Your task to perform on an android device: open app "Pinterest" Image 0: 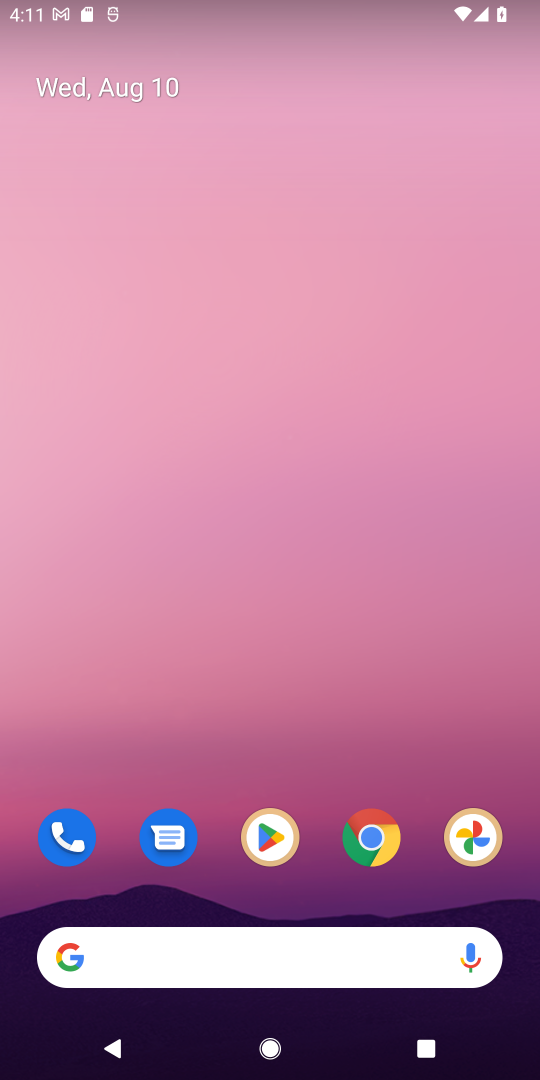
Step 0: press home button
Your task to perform on an android device: open app "Pinterest" Image 1: 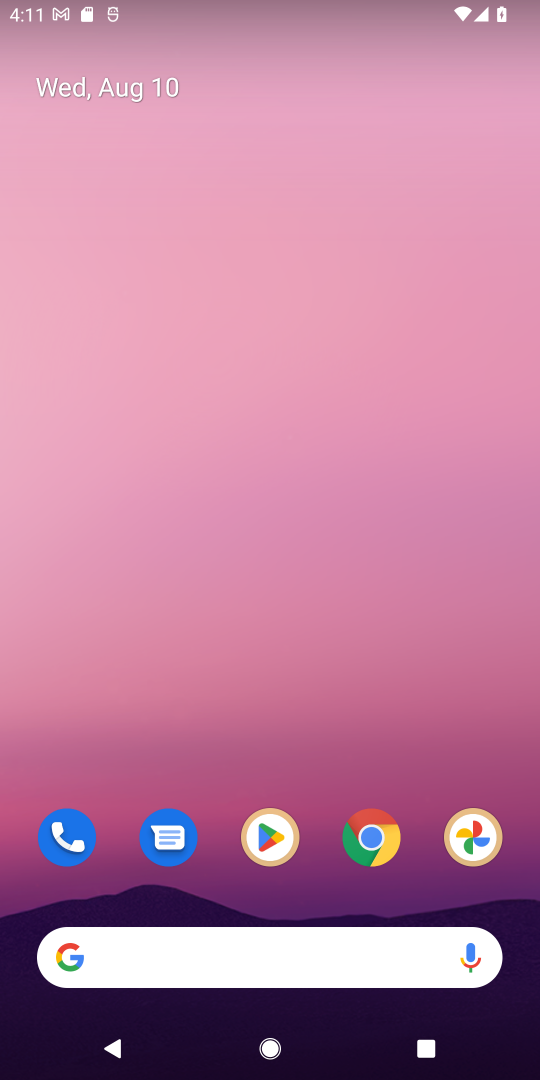
Step 1: click (268, 836)
Your task to perform on an android device: open app "Pinterest" Image 2: 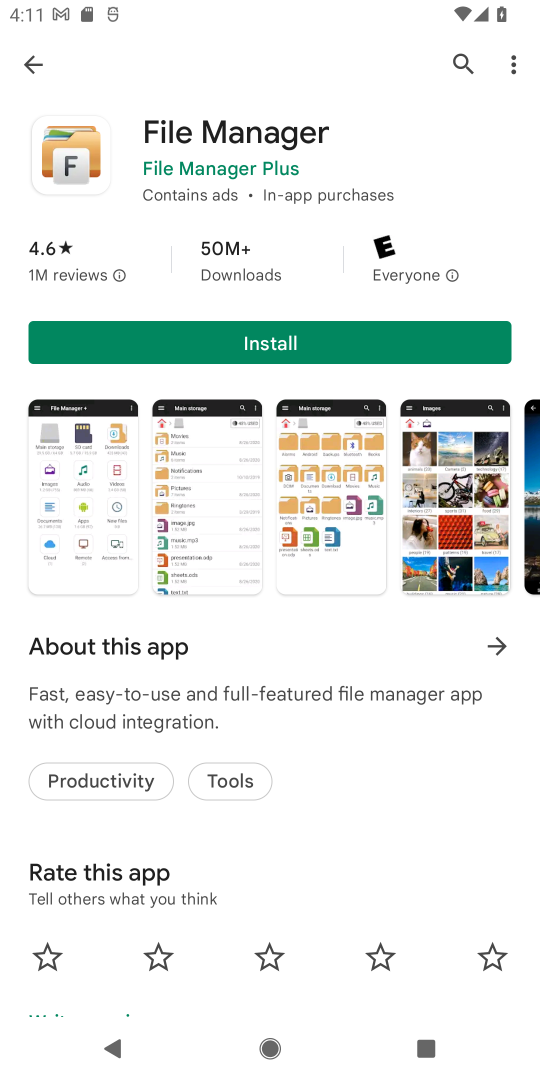
Step 2: click (464, 51)
Your task to perform on an android device: open app "Pinterest" Image 3: 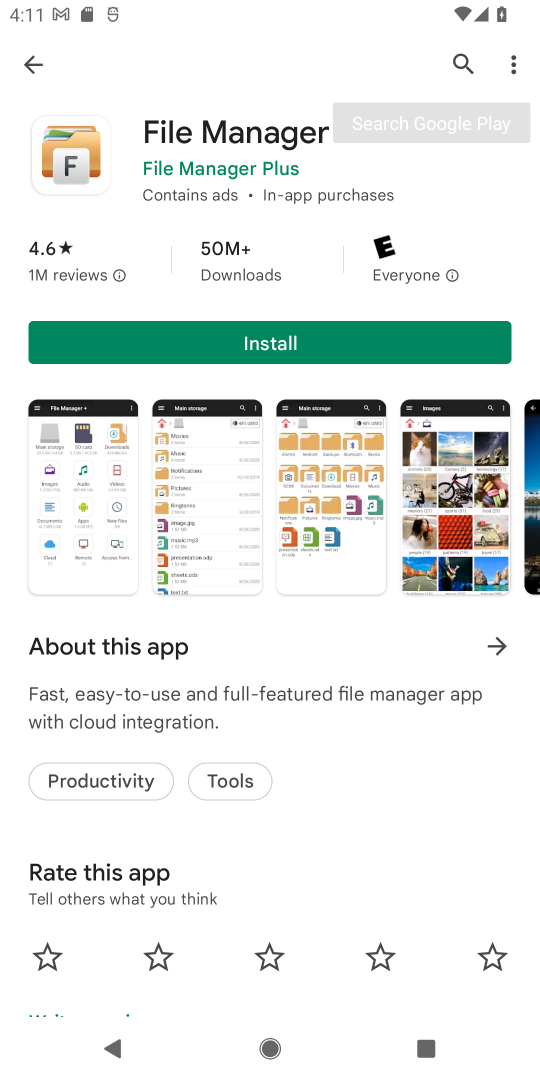
Step 3: click (451, 53)
Your task to perform on an android device: open app "Pinterest" Image 4: 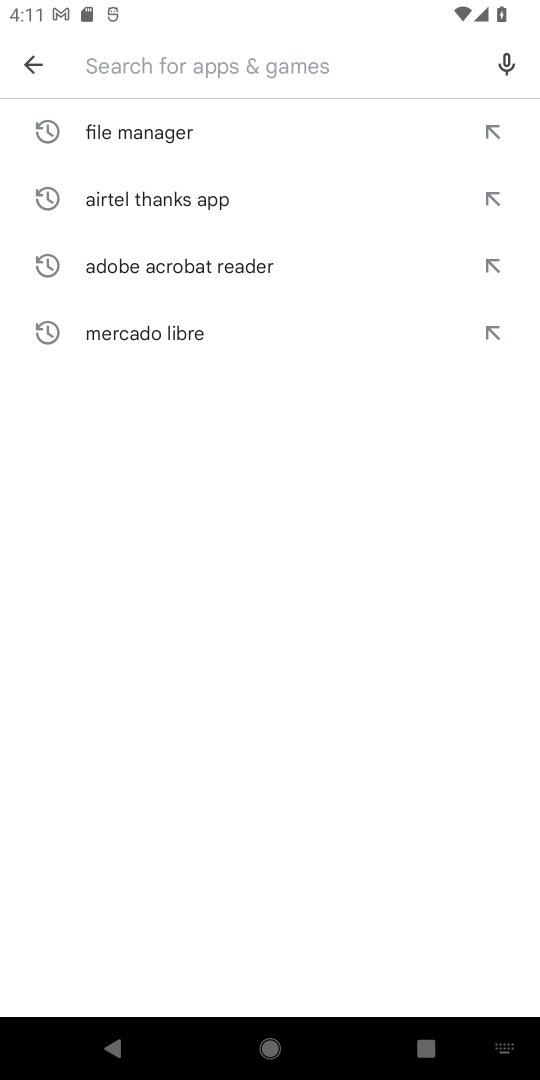
Step 4: type "Pinterest"
Your task to perform on an android device: open app "Pinterest" Image 5: 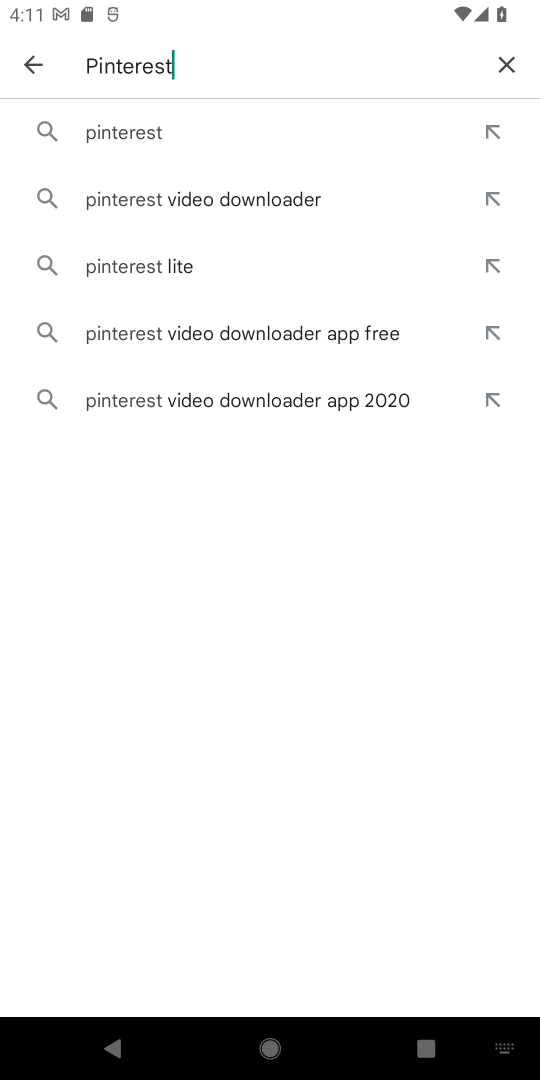
Step 5: click (137, 133)
Your task to perform on an android device: open app "Pinterest" Image 6: 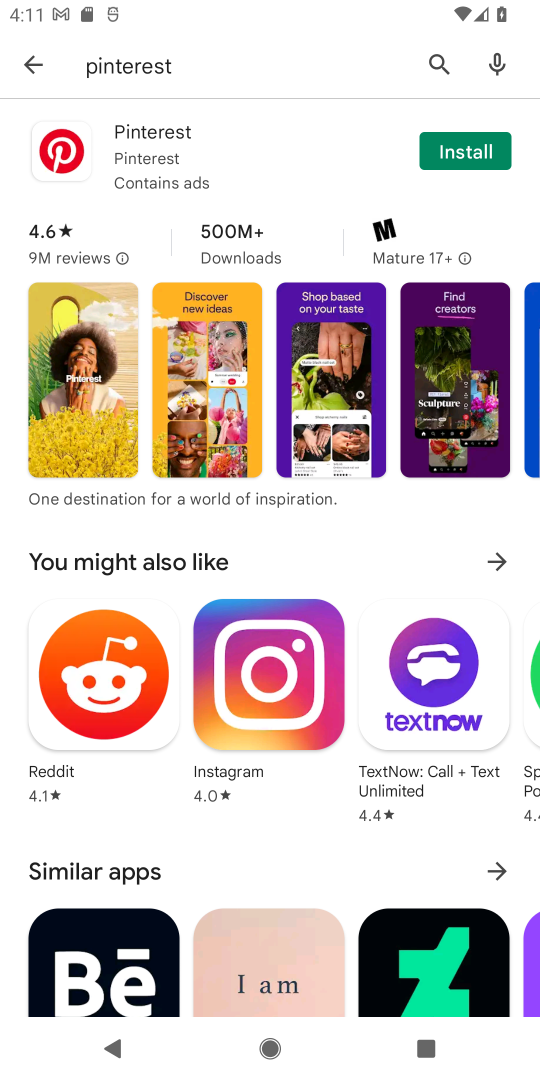
Step 6: task complete